Your task to perform on an android device: set an alarm Image 0: 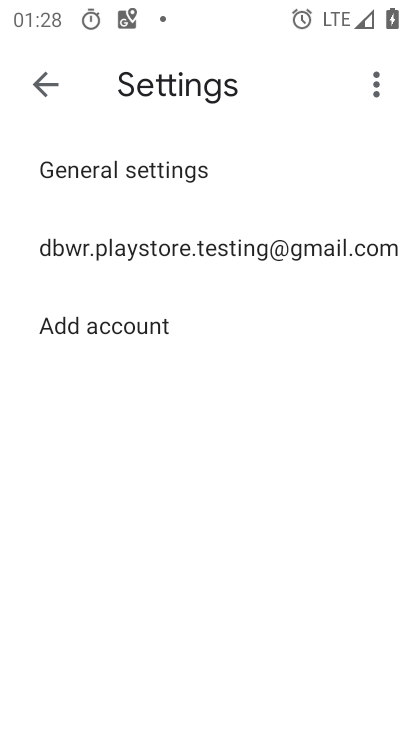
Step 0: press home button
Your task to perform on an android device: set an alarm Image 1: 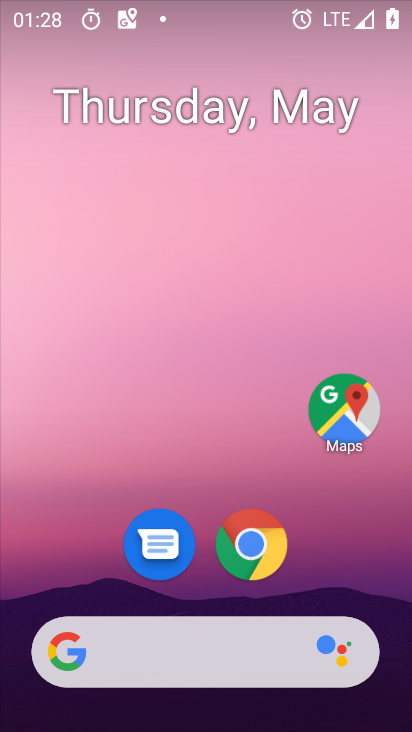
Step 1: drag from (374, 569) to (351, 122)
Your task to perform on an android device: set an alarm Image 2: 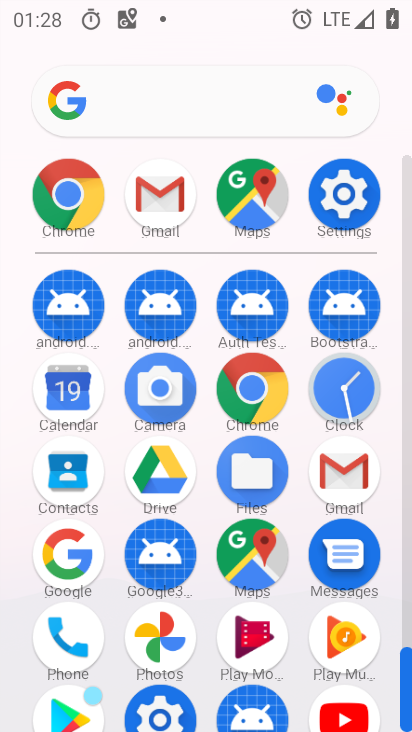
Step 2: click (357, 395)
Your task to perform on an android device: set an alarm Image 3: 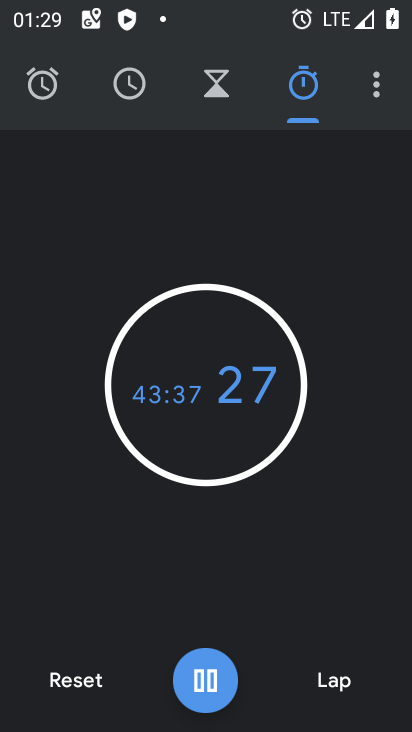
Step 3: click (45, 100)
Your task to perform on an android device: set an alarm Image 4: 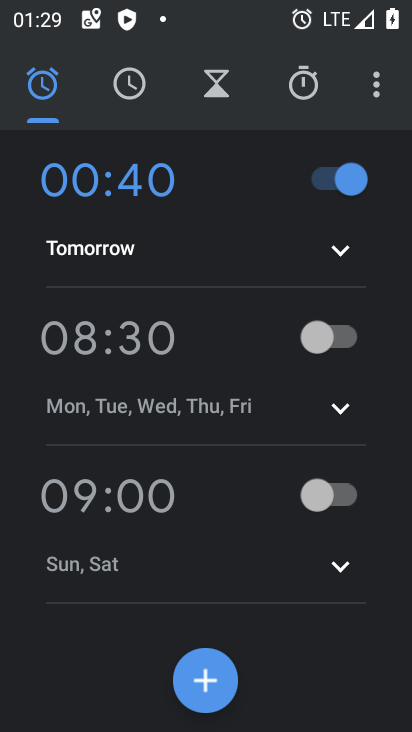
Step 4: click (215, 680)
Your task to perform on an android device: set an alarm Image 5: 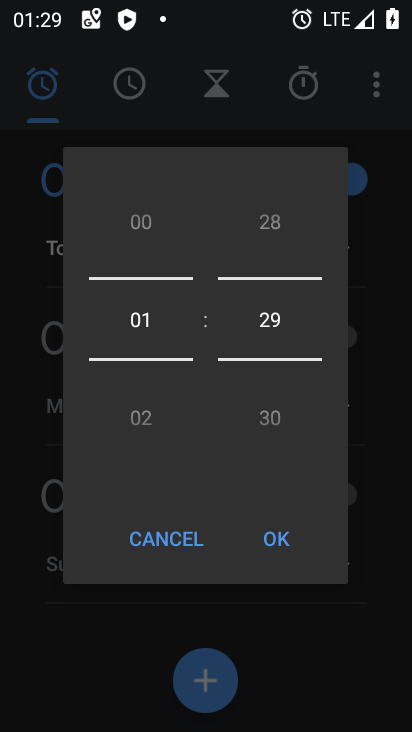
Step 5: click (290, 556)
Your task to perform on an android device: set an alarm Image 6: 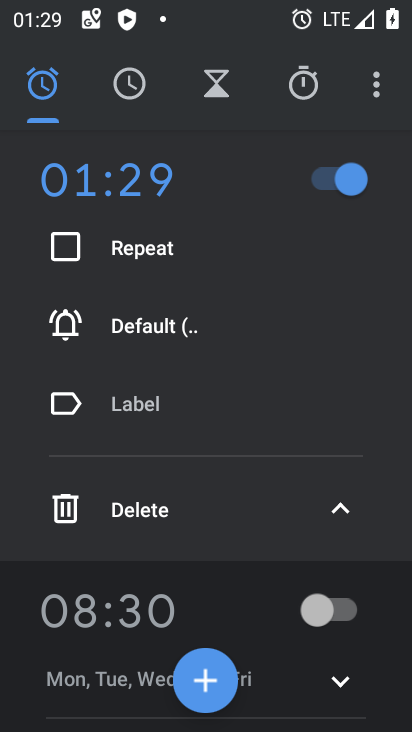
Step 6: task complete